Your task to perform on an android device: check data usage Image 0: 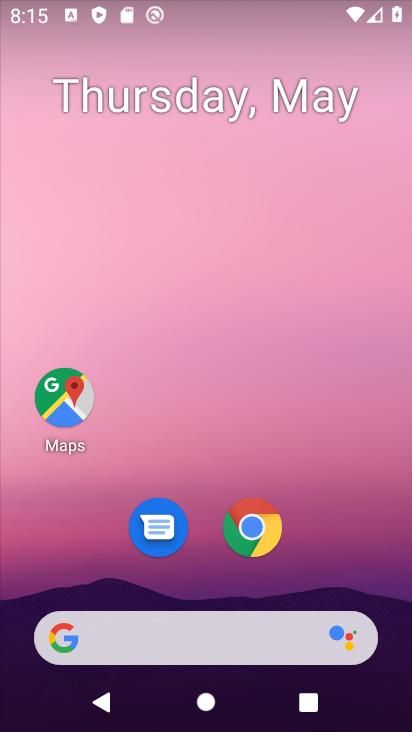
Step 0: drag from (405, 701) to (268, 134)
Your task to perform on an android device: check data usage Image 1: 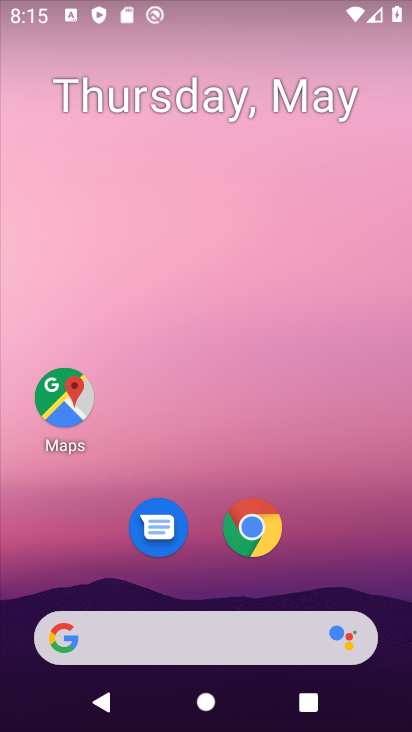
Step 1: drag from (84, 458) to (198, 187)
Your task to perform on an android device: check data usage Image 2: 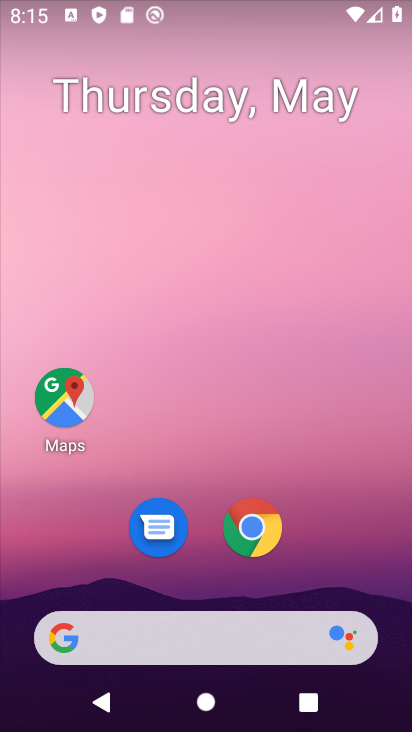
Step 2: drag from (58, 504) to (253, 107)
Your task to perform on an android device: check data usage Image 3: 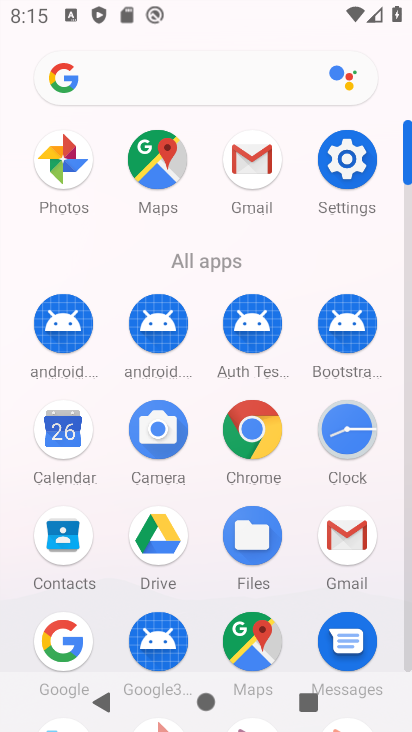
Step 3: click (348, 181)
Your task to perform on an android device: check data usage Image 4: 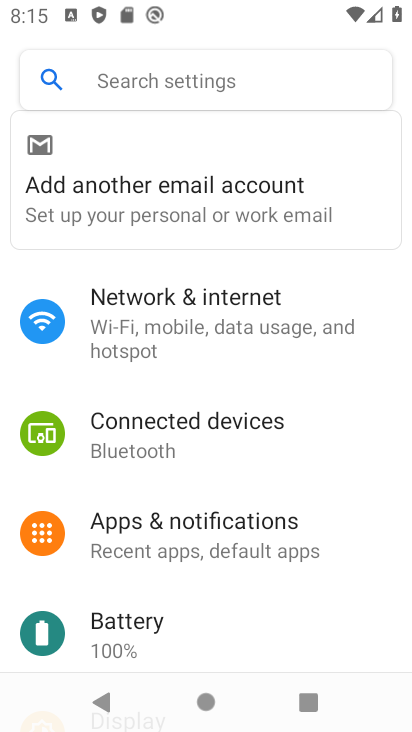
Step 4: click (102, 331)
Your task to perform on an android device: check data usage Image 5: 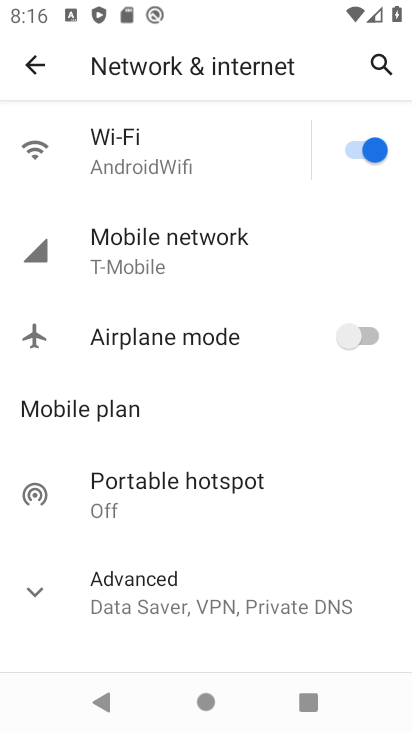
Step 5: click (168, 252)
Your task to perform on an android device: check data usage Image 6: 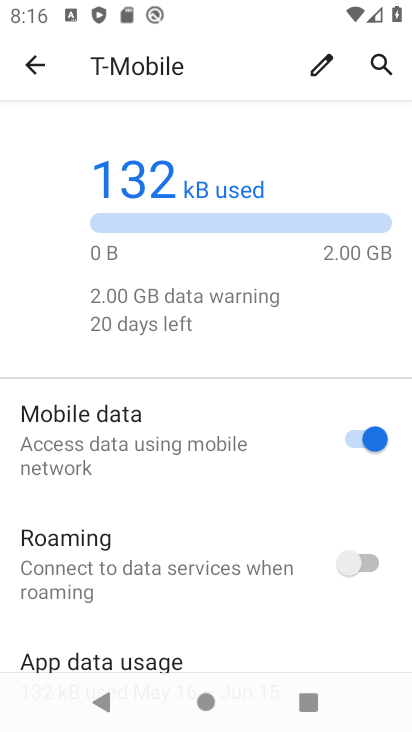
Step 6: task complete